Your task to perform on an android device: toggle location history Image 0: 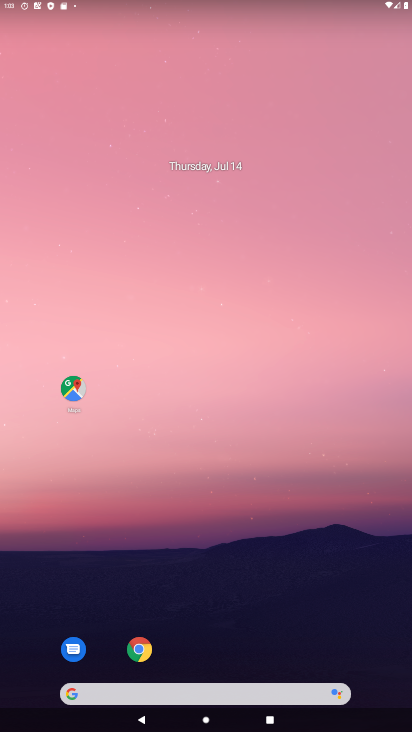
Step 0: drag from (243, 536) to (217, 5)
Your task to perform on an android device: toggle location history Image 1: 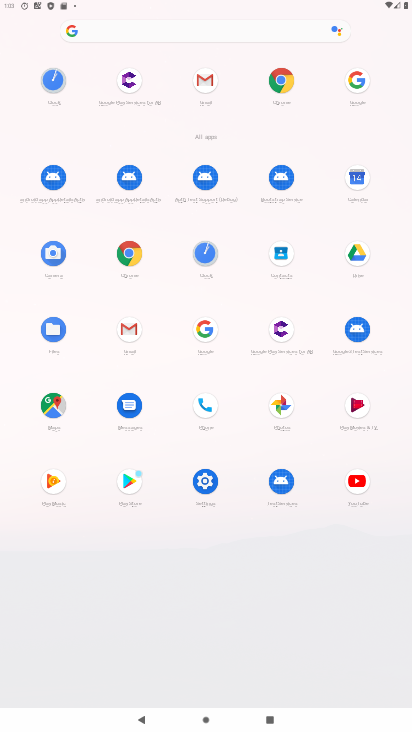
Step 1: click (205, 485)
Your task to perform on an android device: toggle location history Image 2: 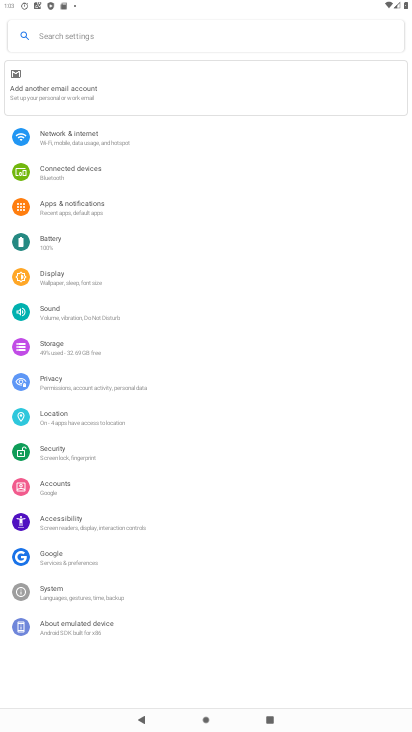
Step 2: click (93, 418)
Your task to perform on an android device: toggle location history Image 3: 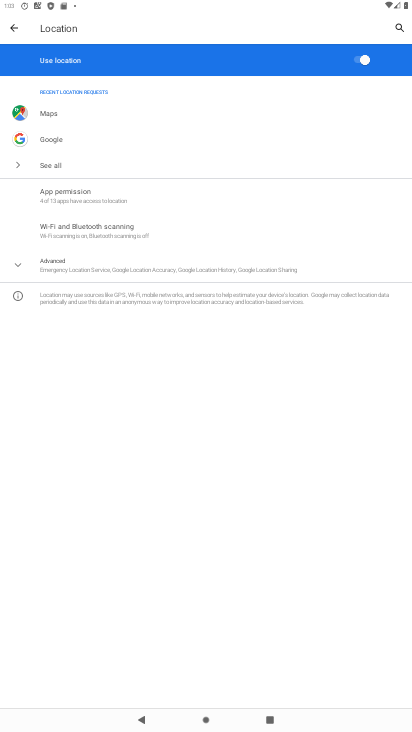
Step 3: click (93, 262)
Your task to perform on an android device: toggle location history Image 4: 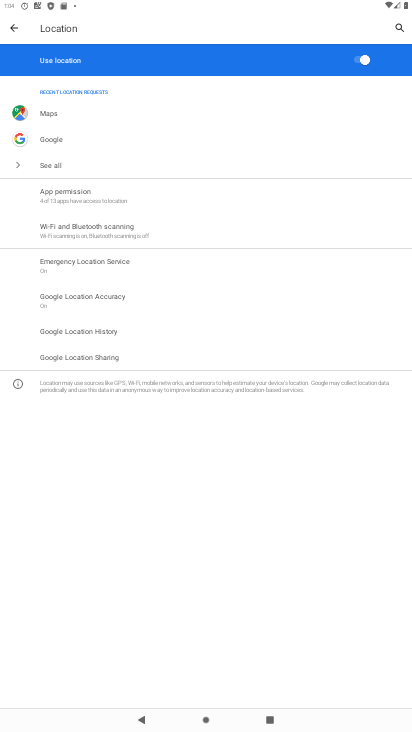
Step 4: click (105, 333)
Your task to perform on an android device: toggle location history Image 5: 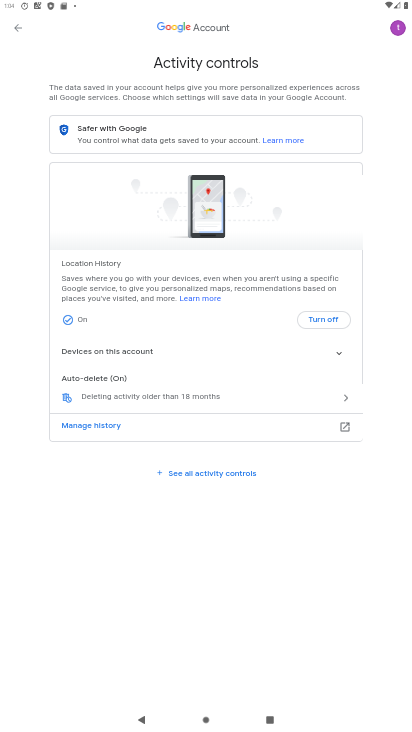
Step 5: click (330, 318)
Your task to perform on an android device: toggle location history Image 6: 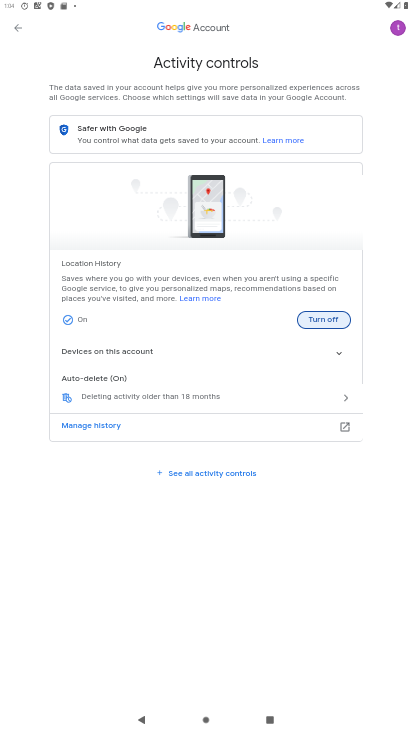
Step 6: click (329, 318)
Your task to perform on an android device: toggle location history Image 7: 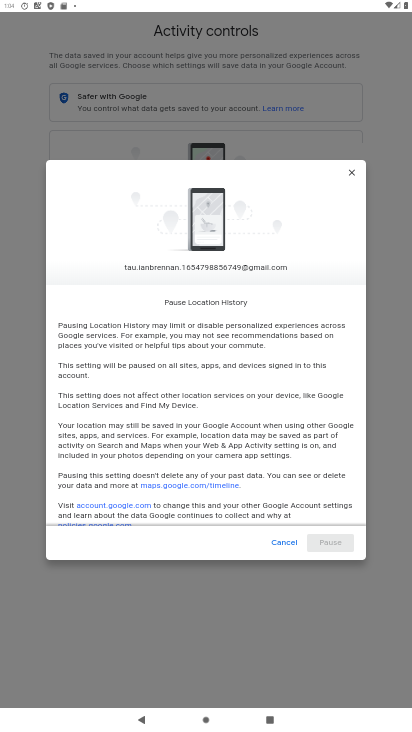
Step 7: drag from (235, 494) to (208, 189)
Your task to perform on an android device: toggle location history Image 8: 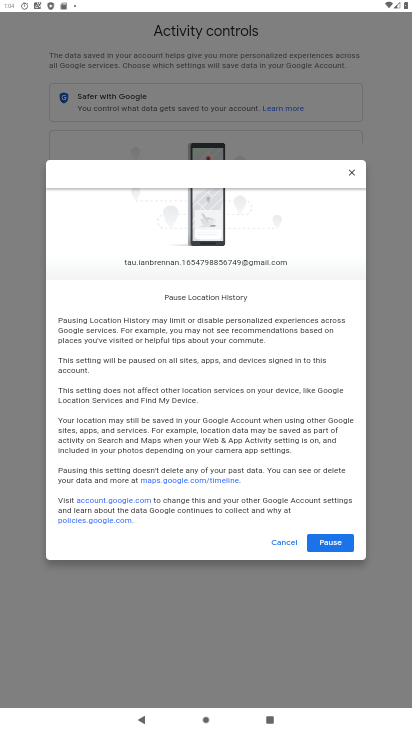
Step 8: drag from (193, 480) to (245, 219)
Your task to perform on an android device: toggle location history Image 9: 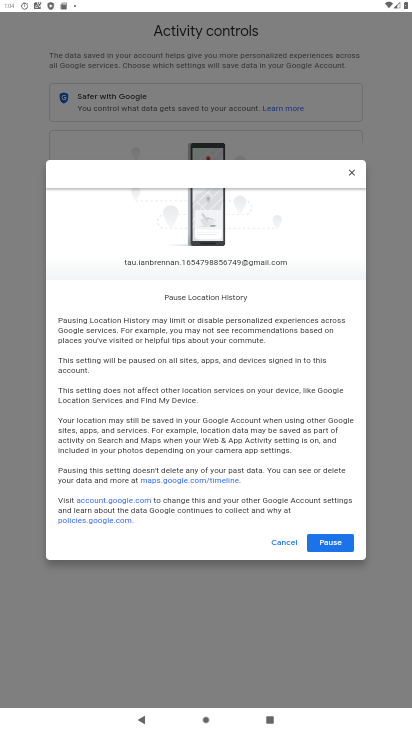
Step 9: click (335, 545)
Your task to perform on an android device: toggle location history Image 10: 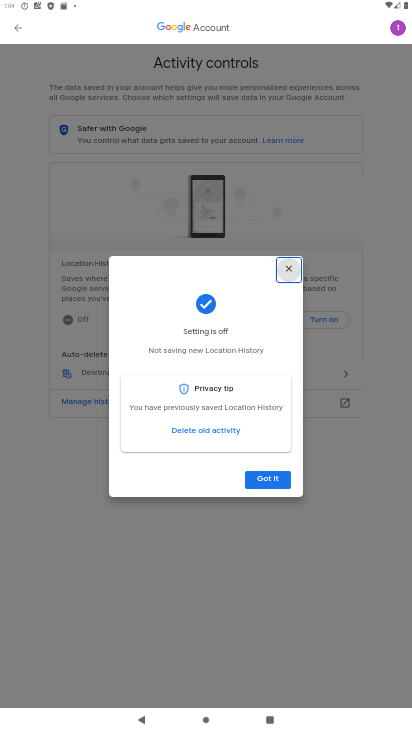
Step 10: click (272, 479)
Your task to perform on an android device: toggle location history Image 11: 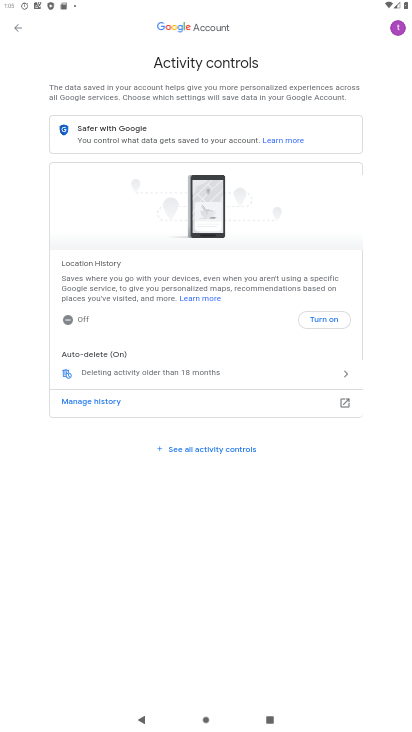
Step 11: task complete